Your task to perform on an android device: Search for vegetarian restaurants on Maps Image 0: 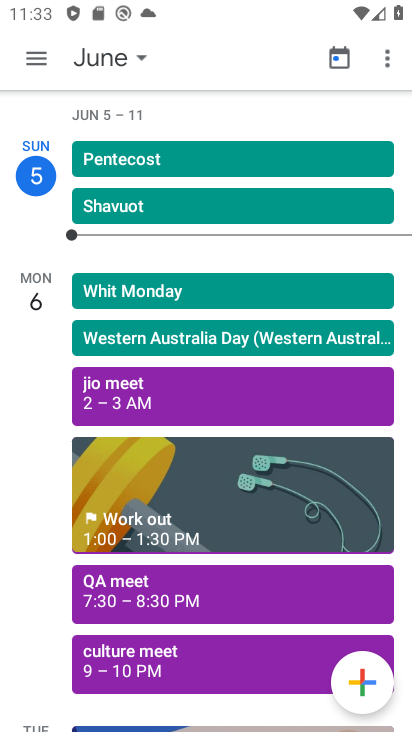
Step 0: press home button
Your task to perform on an android device: Search for vegetarian restaurants on Maps Image 1: 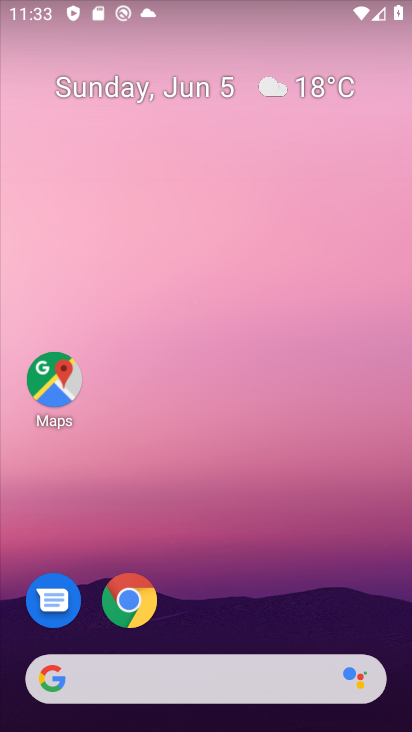
Step 1: click (63, 393)
Your task to perform on an android device: Search for vegetarian restaurants on Maps Image 2: 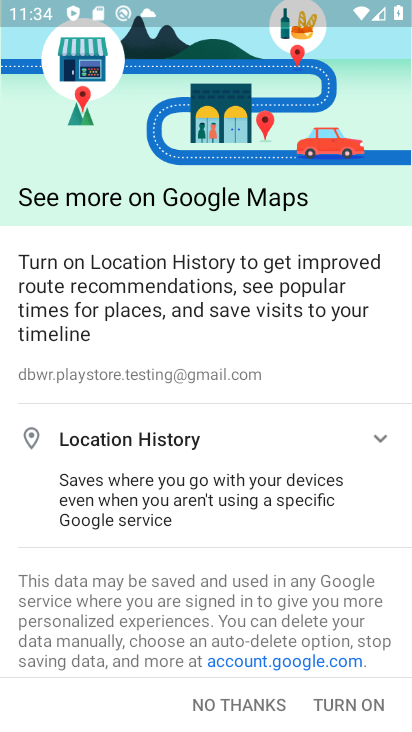
Step 2: click (256, 702)
Your task to perform on an android device: Search for vegetarian restaurants on Maps Image 3: 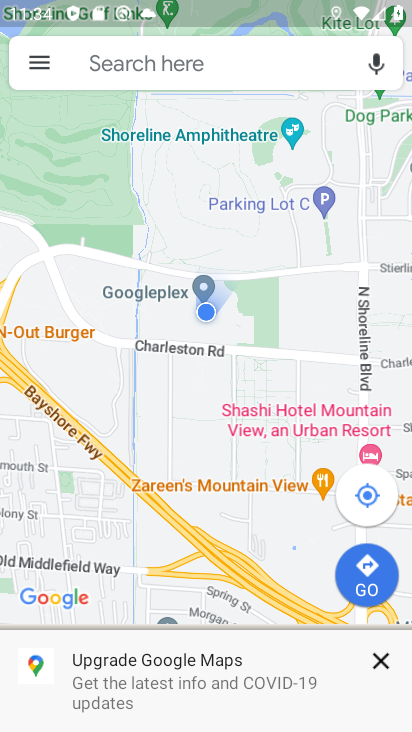
Step 3: click (169, 77)
Your task to perform on an android device: Search for vegetarian restaurants on Maps Image 4: 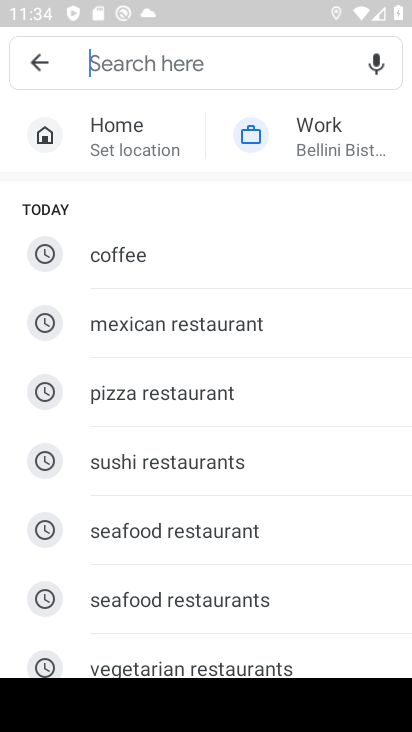
Step 4: click (318, 659)
Your task to perform on an android device: Search for vegetarian restaurants on Maps Image 5: 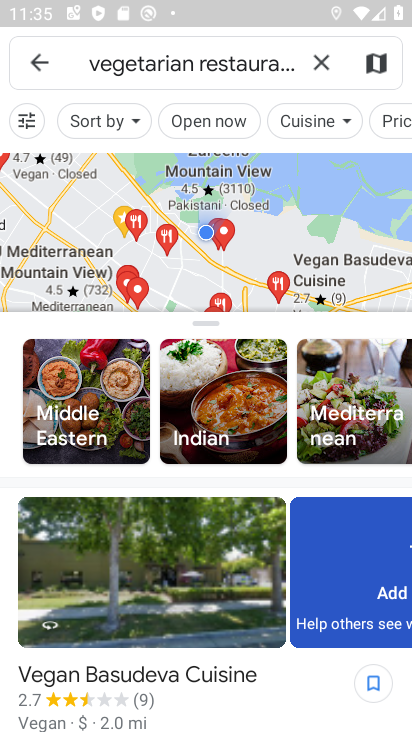
Step 5: task complete